Your task to perform on an android device: install app "WhatsApp Messenger" Image 0: 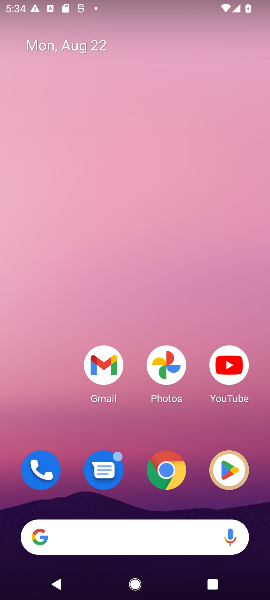
Step 0: click (229, 458)
Your task to perform on an android device: install app "WhatsApp Messenger" Image 1: 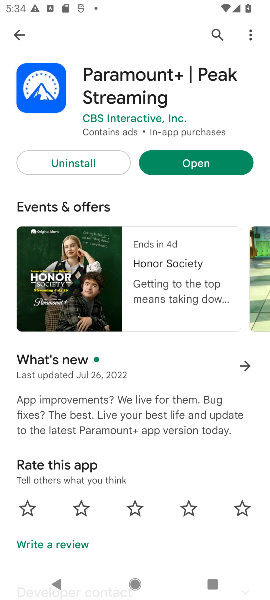
Step 1: click (20, 30)
Your task to perform on an android device: install app "WhatsApp Messenger" Image 2: 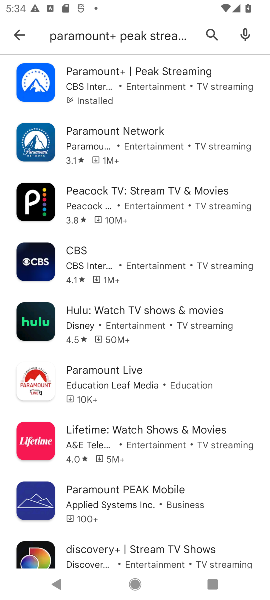
Step 2: click (20, 30)
Your task to perform on an android device: install app "WhatsApp Messenger" Image 3: 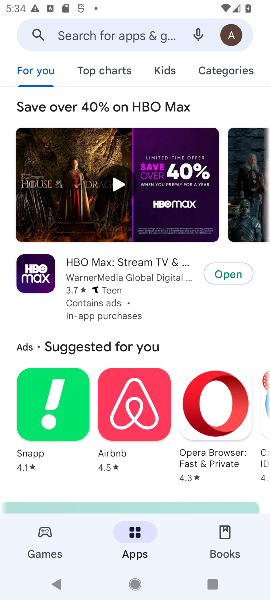
Step 3: click (116, 26)
Your task to perform on an android device: install app "WhatsApp Messenger" Image 4: 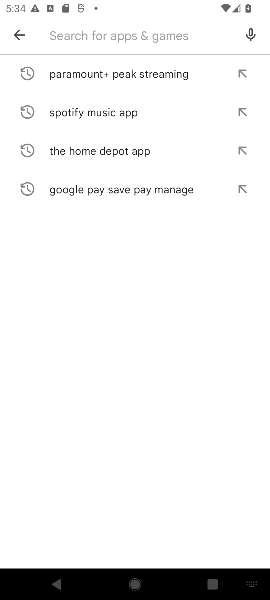
Step 4: type "WhatsApp Messenger "
Your task to perform on an android device: install app "WhatsApp Messenger" Image 5: 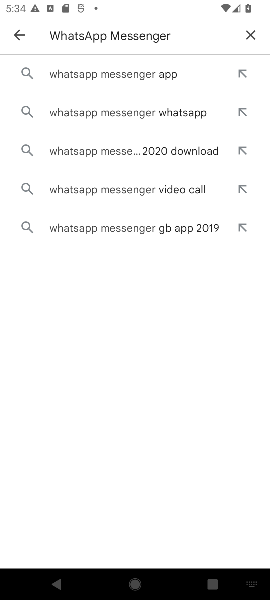
Step 5: click (132, 72)
Your task to perform on an android device: install app "WhatsApp Messenger" Image 6: 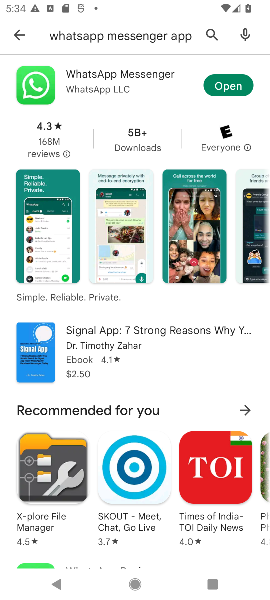
Step 6: click (214, 82)
Your task to perform on an android device: install app "WhatsApp Messenger" Image 7: 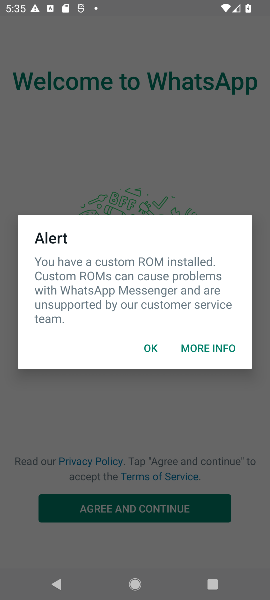
Step 7: task complete